Your task to perform on an android device: View the shopping cart on amazon. Add "acer nitro" to the cart on amazon, then select checkout. Image 0: 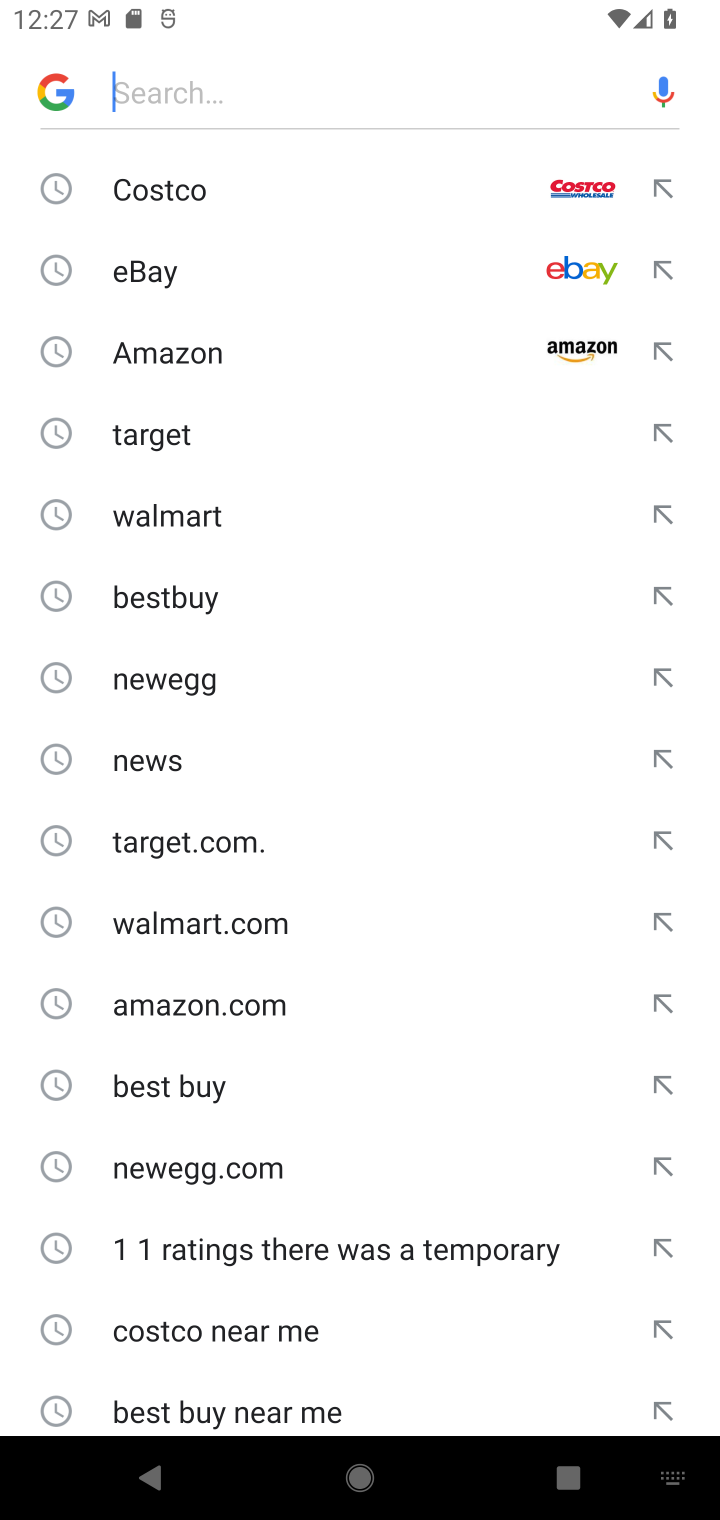
Step 0: press home button
Your task to perform on an android device: View the shopping cart on amazon. Add "acer nitro" to the cart on amazon, then select checkout. Image 1: 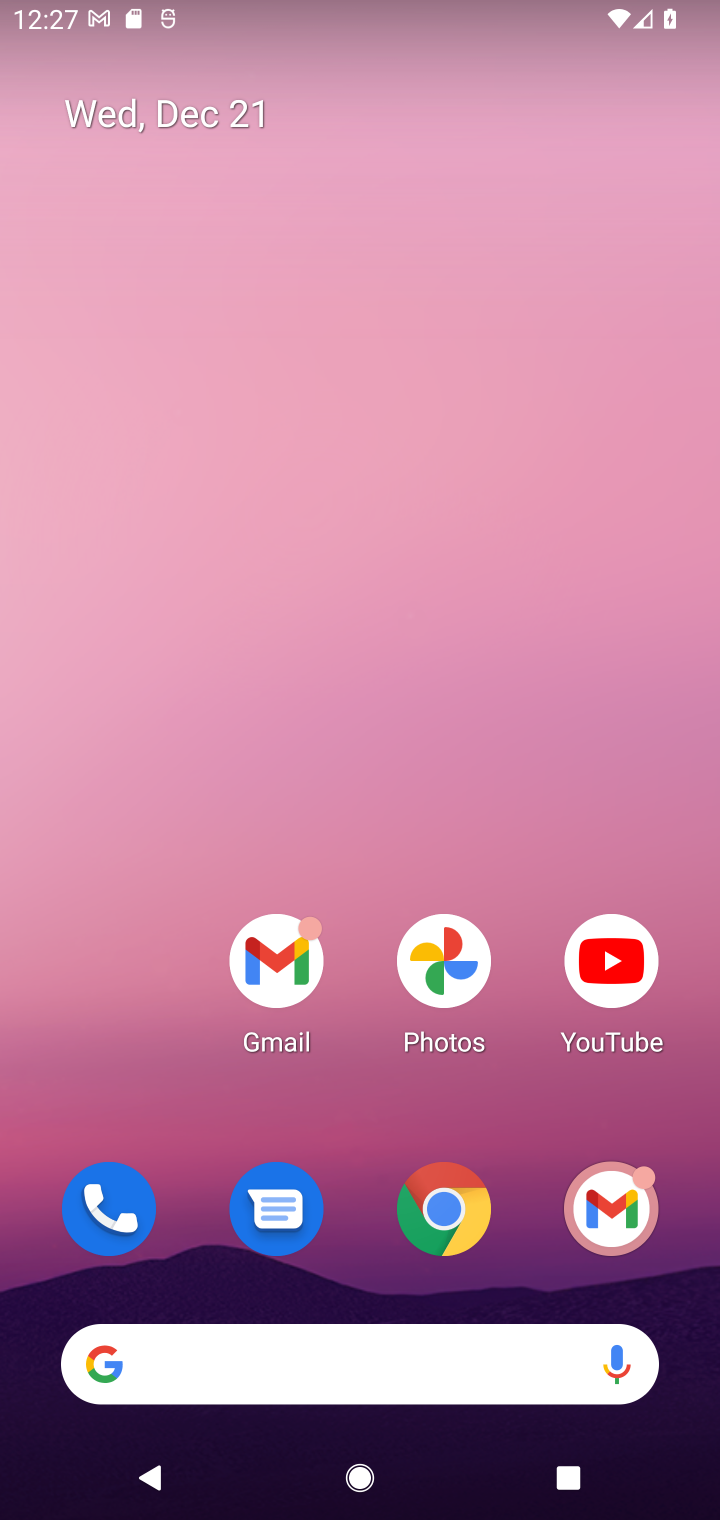
Step 1: click (437, 1222)
Your task to perform on an android device: View the shopping cart on amazon. Add "acer nitro" to the cart on amazon, then select checkout. Image 2: 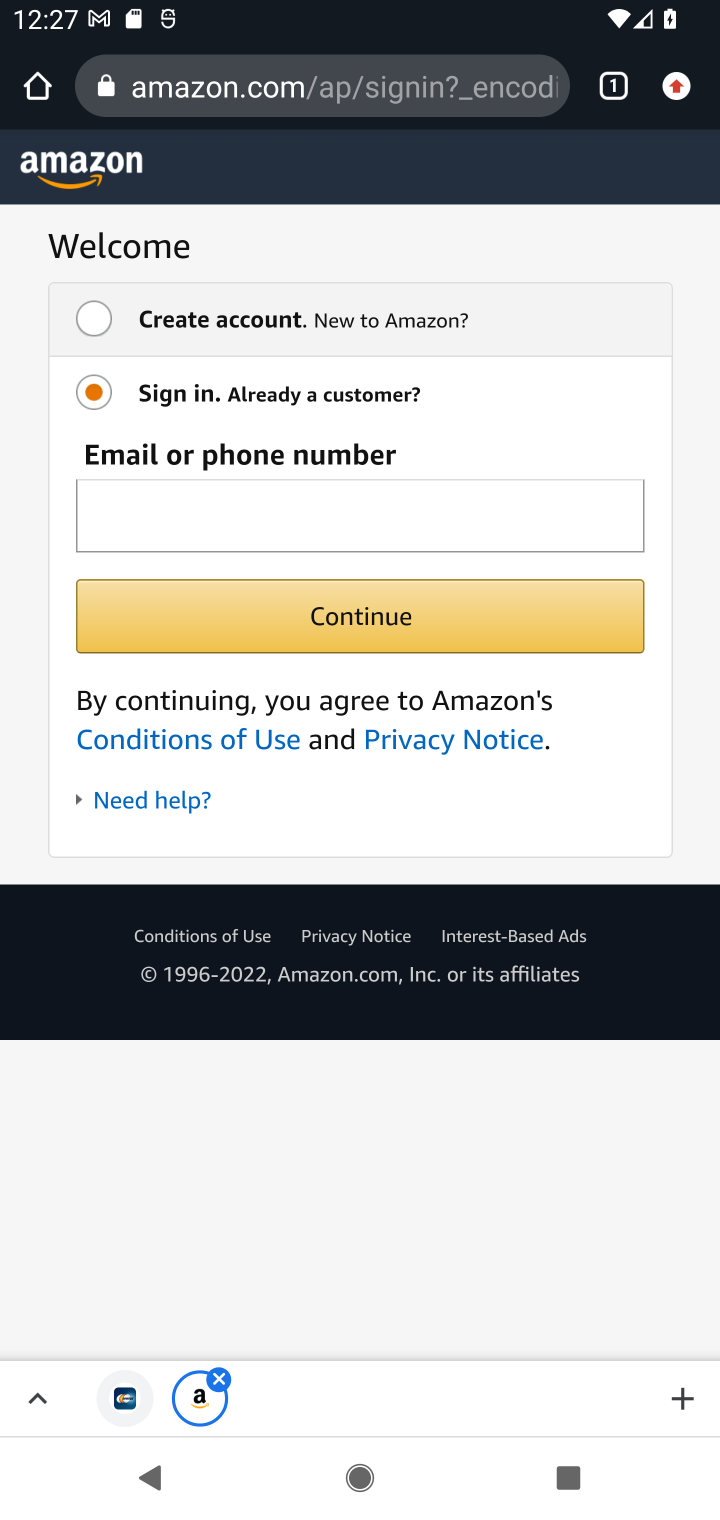
Step 2: press back button
Your task to perform on an android device: View the shopping cart on amazon. Add "acer nitro" to the cart on amazon, then select checkout. Image 3: 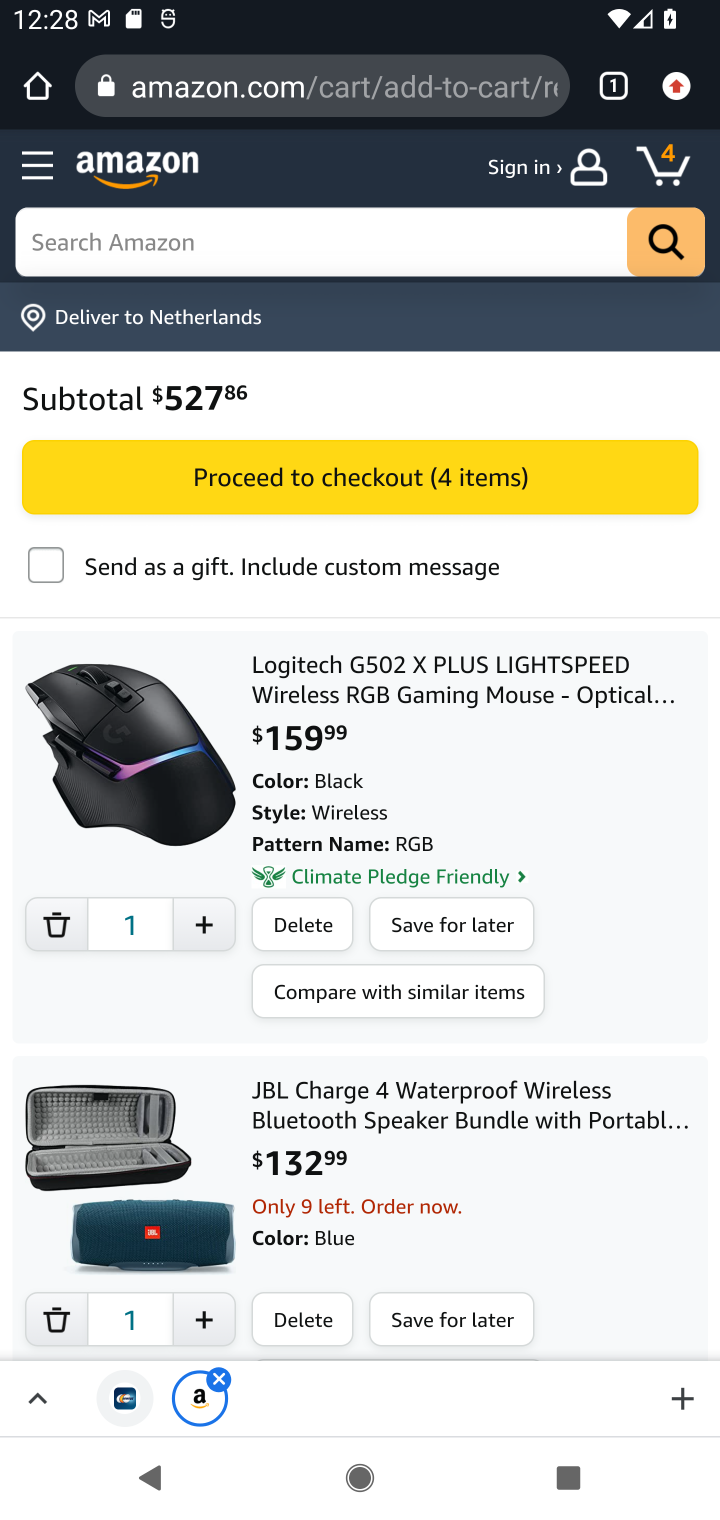
Step 3: click (132, 252)
Your task to perform on an android device: View the shopping cart on amazon. Add "acer nitro" to the cart on amazon, then select checkout. Image 4: 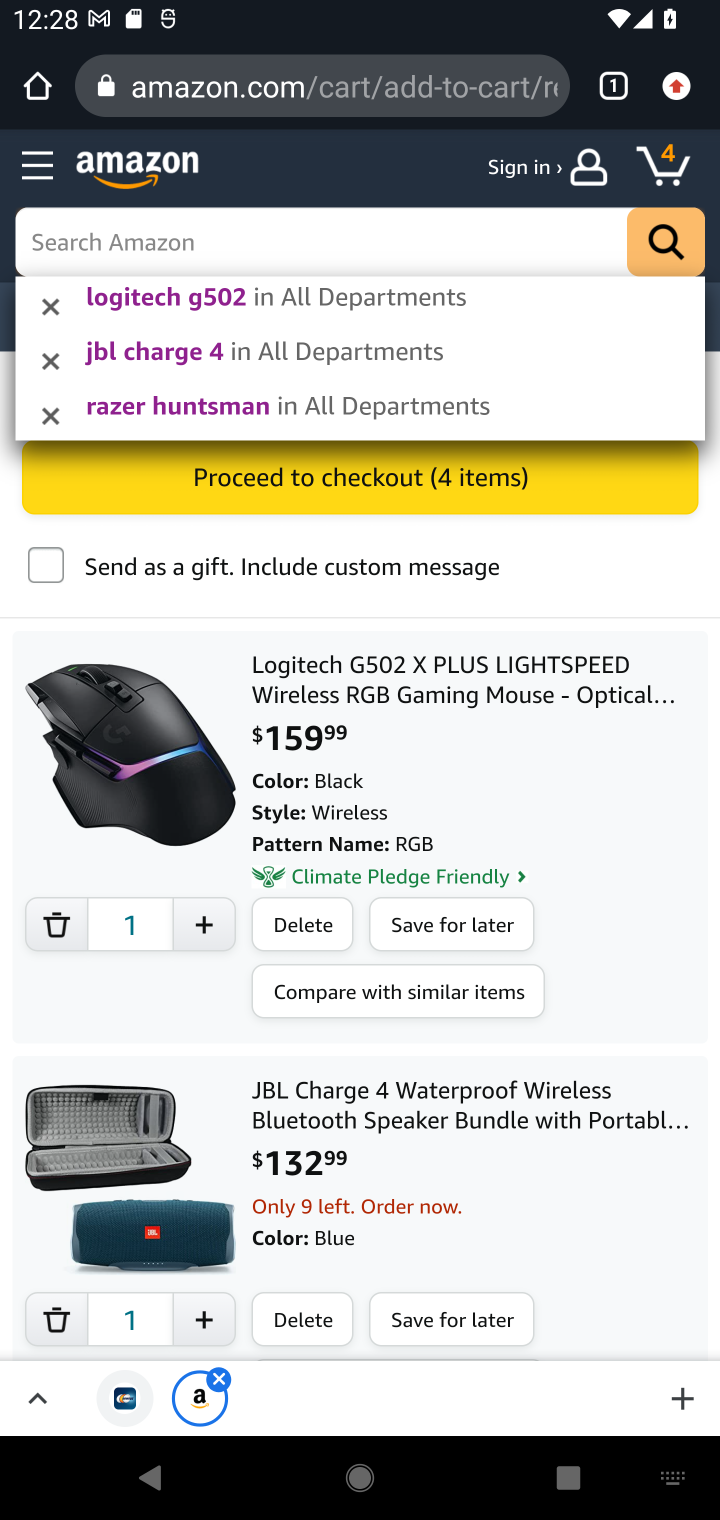
Step 4: type "acer nitro"
Your task to perform on an android device: View the shopping cart on amazon. Add "acer nitro" to the cart on amazon, then select checkout. Image 5: 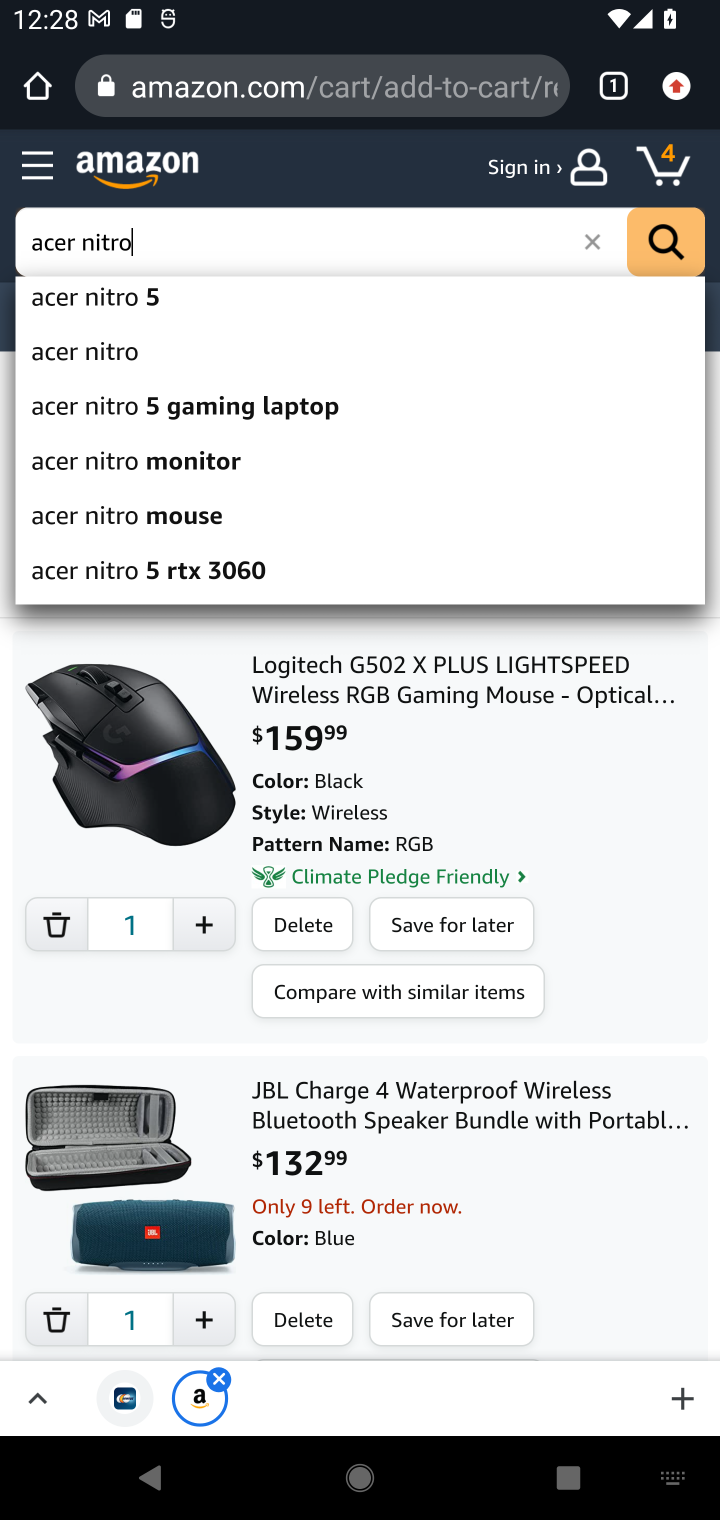
Step 5: click (92, 359)
Your task to perform on an android device: View the shopping cart on amazon. Add "acer nitro" to the cart on amazon, then select checkout. Image 6: 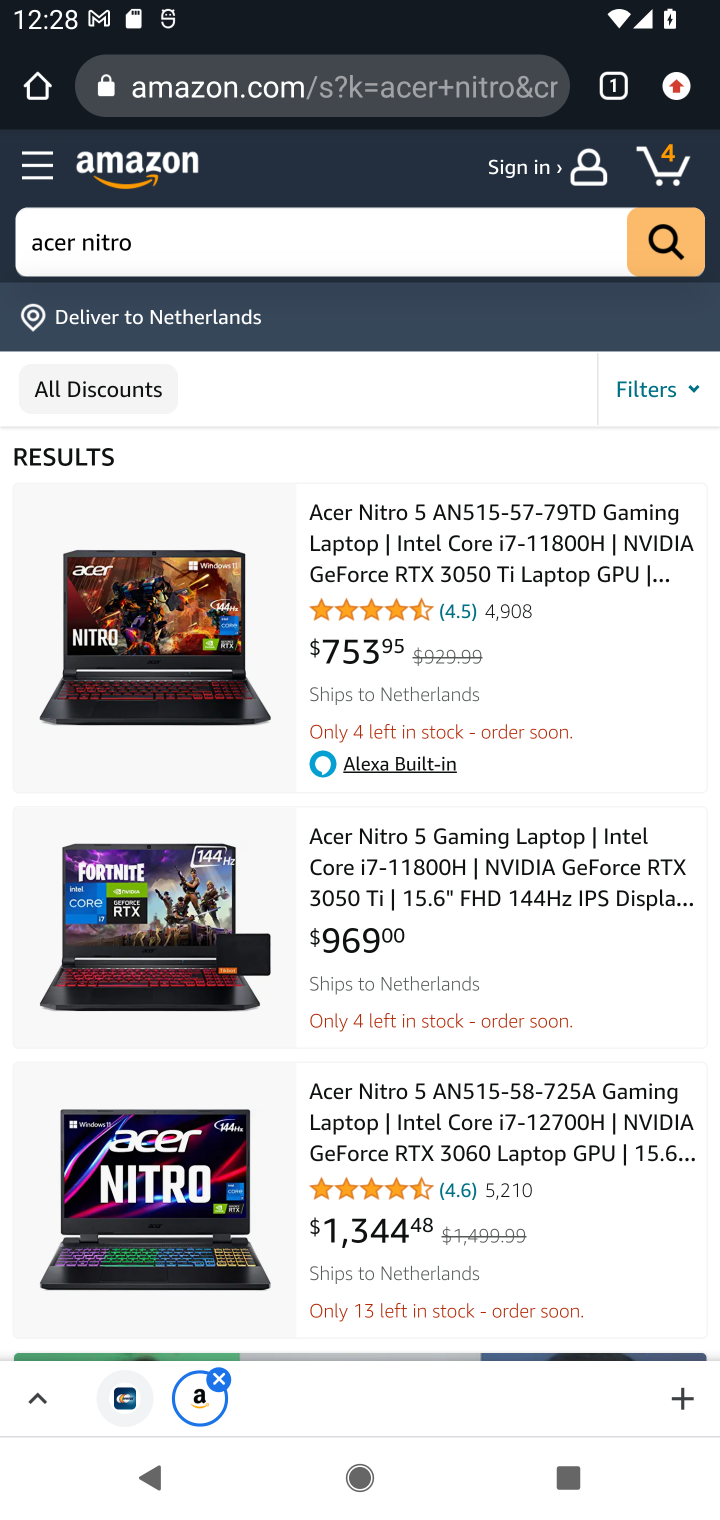
Step 6: click (405, 560)
Your task to perform on an android device: View the shopping cart on amazon. Add "acer nitro" to the cart on amazon, then select checkout. Image 7: 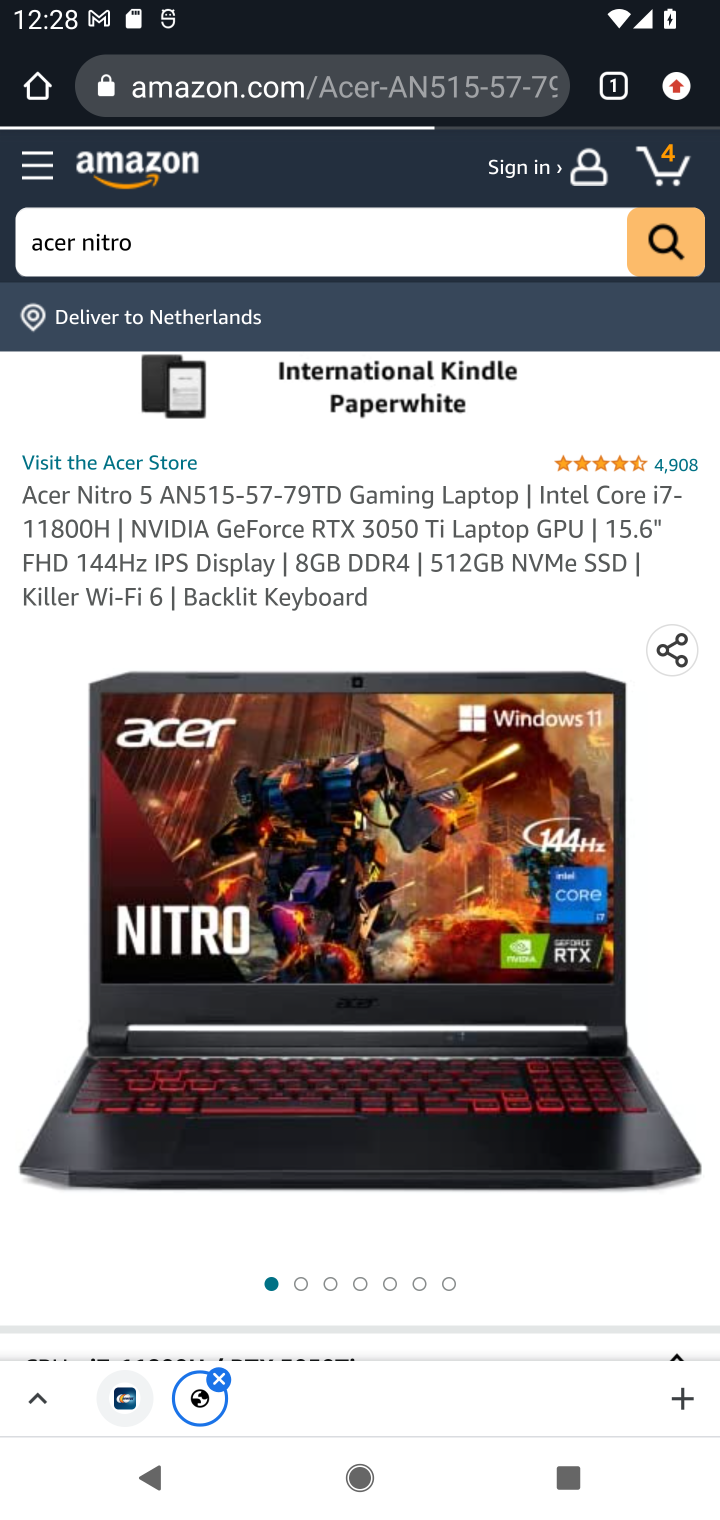
Step 7: drag from (309, 679) to (313, 382)
Your task to perform on an android device: View the shopping cart on amazon. Add "acer nitro" to the cart on amazon, then select checkout. Image 8: 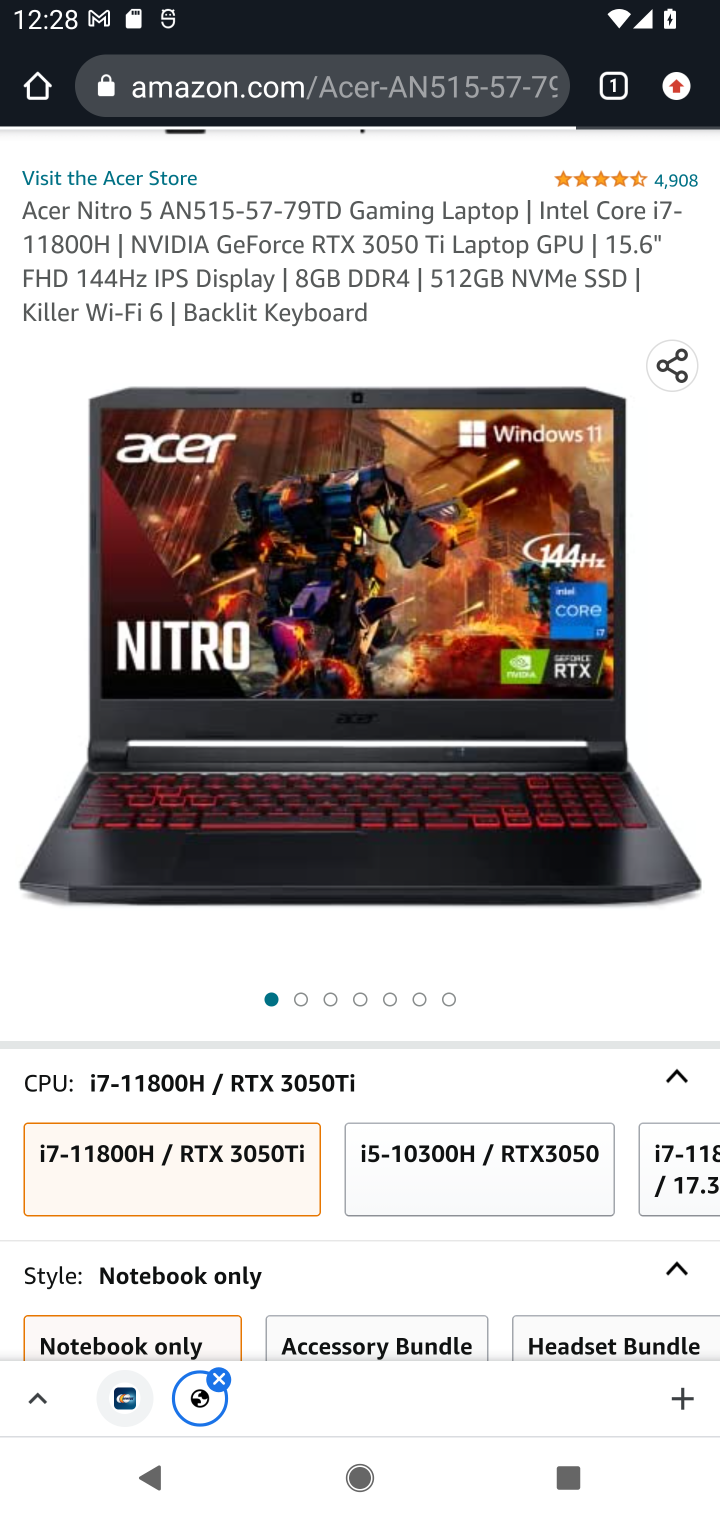
Step 8: drag from (359, 1087) to (314, 526)
Your task to perform on an android device: View the shopping cart on amazon. Add "acer nitro" to the cart on amazon, then select checkout. Image 9: 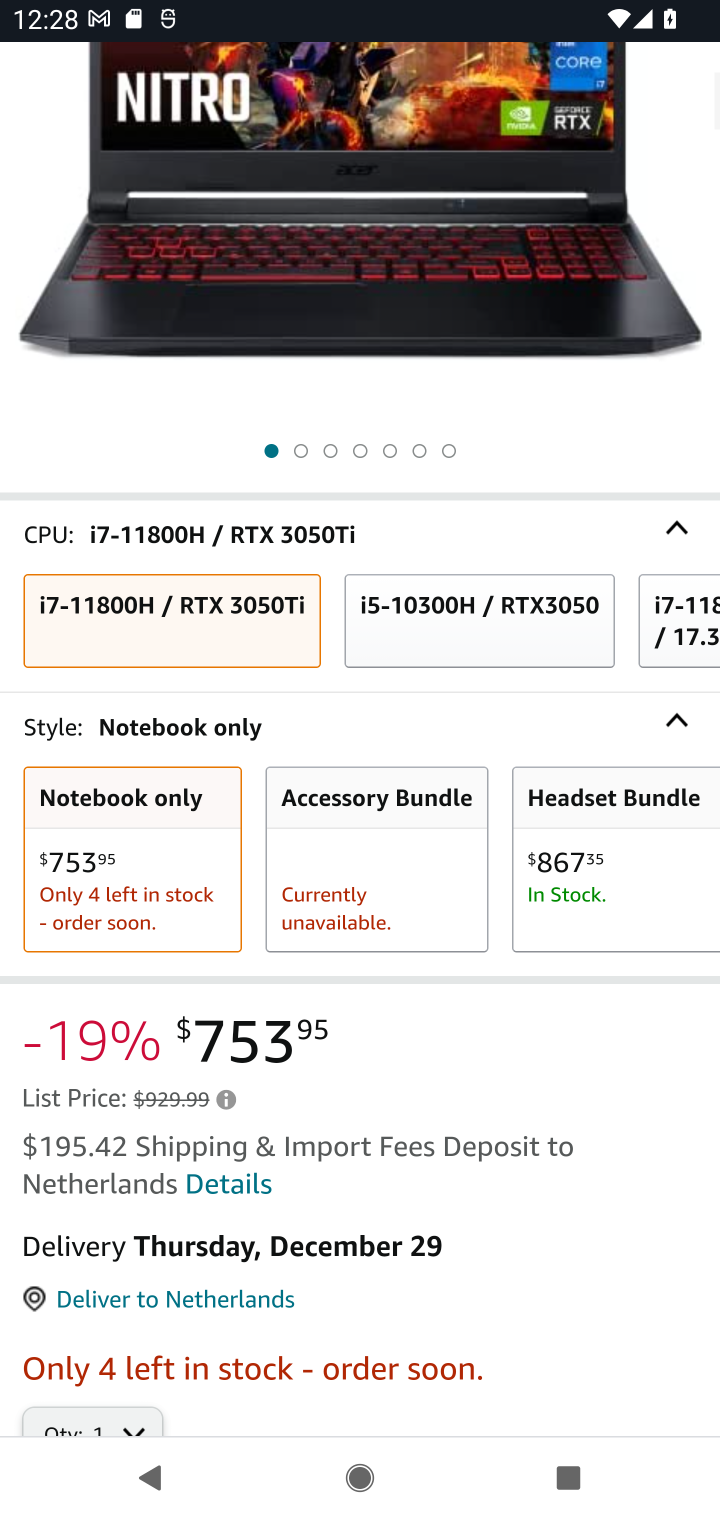
Step 9: drag from (343, 886) to (327, 507)
Your task to perform on an android device: View the shopping cart on amazon. Add "acer nitro" to the cart on amazon, then select checkout. Image 10: 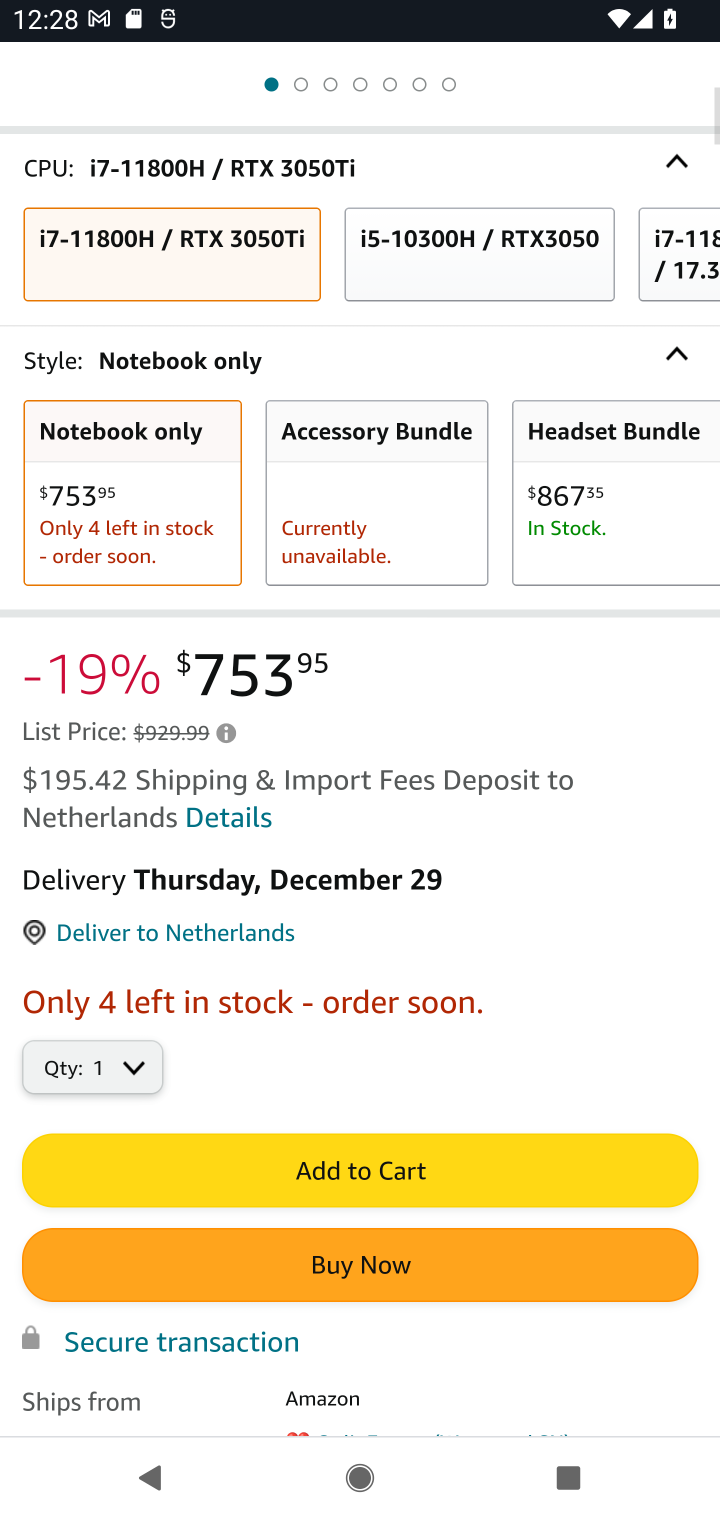
Step 10: click (339, 1156)
Your task to perform on an android device: View the shopping cart on amazon. Add "acer nitro" to the cart on amazon, then select checkout. Image 11: 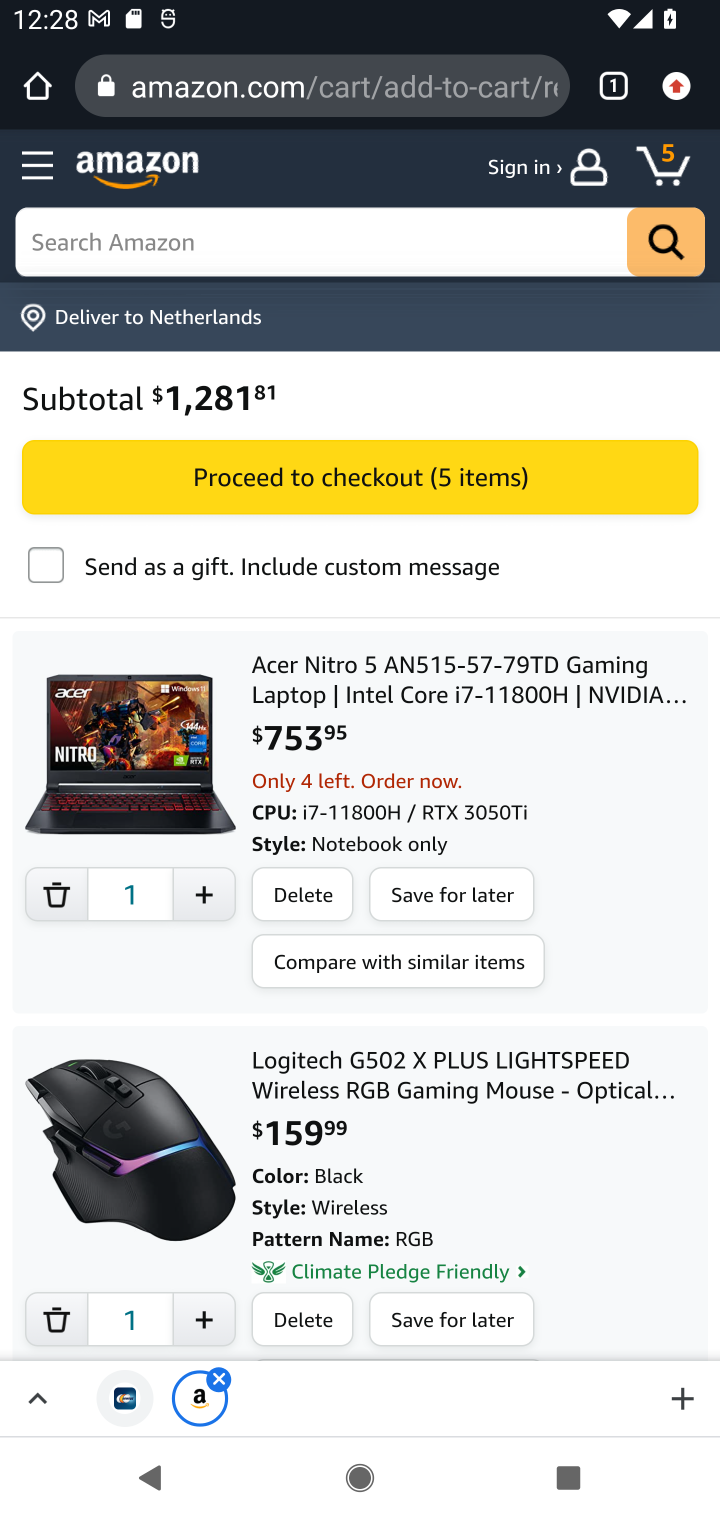
Step 11: click (312, 484)
Your task to perform on an android device: View the shopping cart on amazon. Add "acer nitro" to the cart on amazon, then select checkout. Image 12: 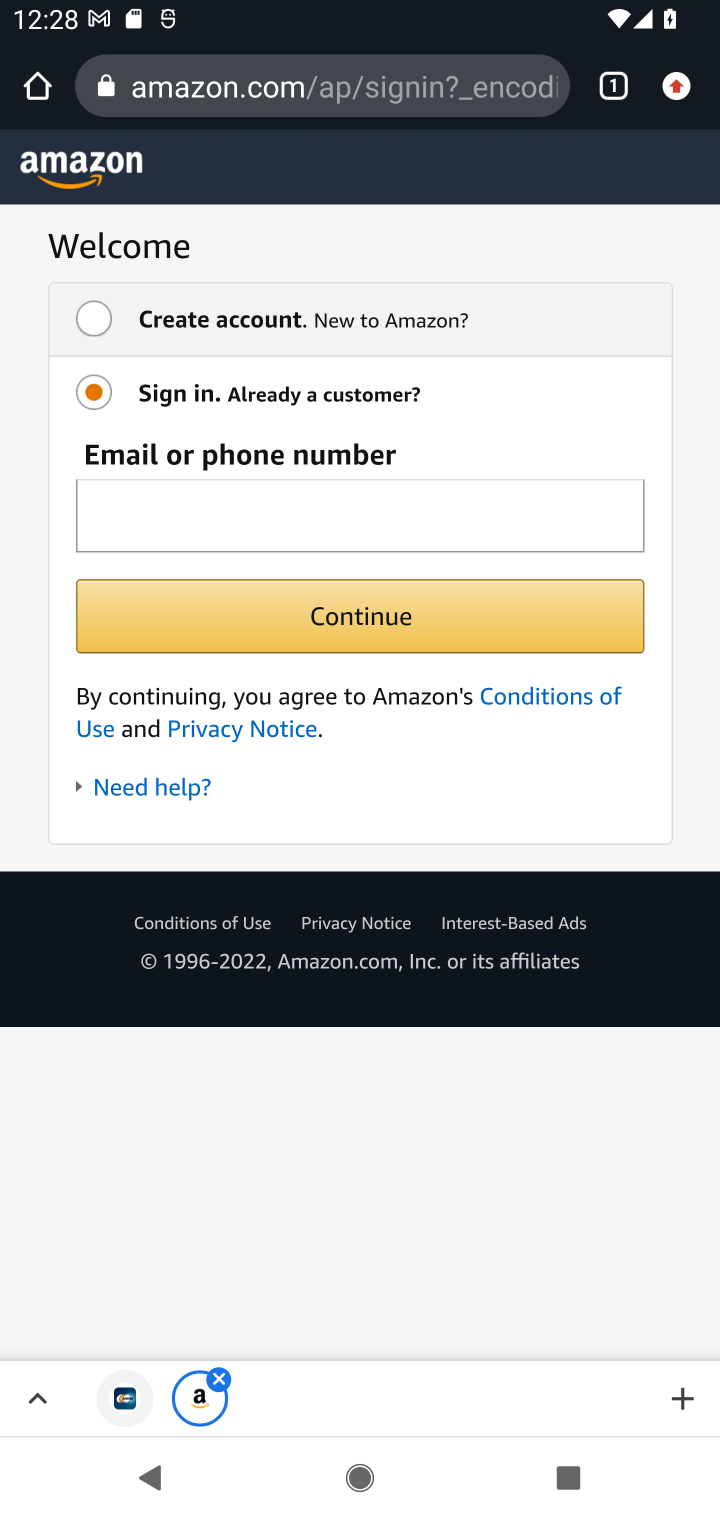
Step 12: task complete